Your task to perform on an android device: Open the calendar app, open the side menu, and click the "Day" option Image 0: 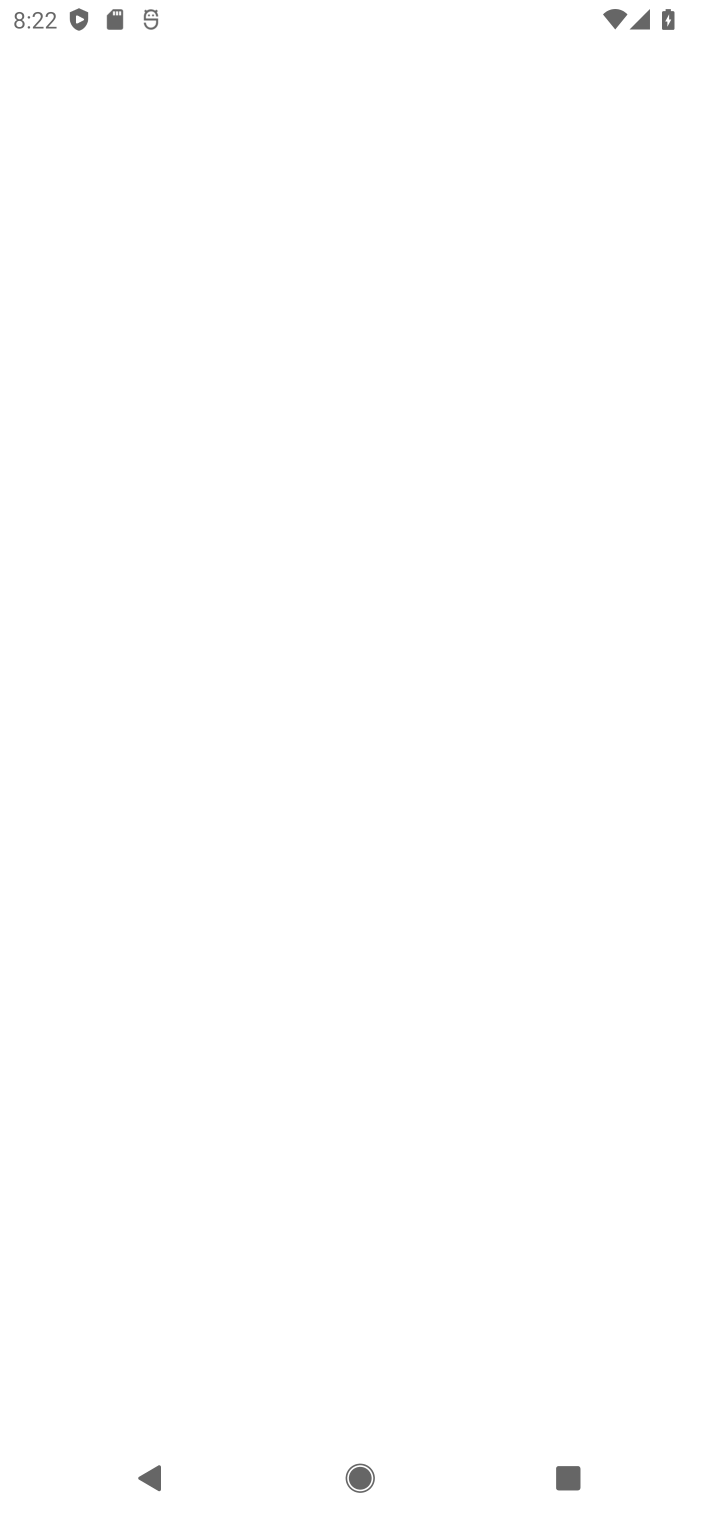
Step 0: click (403, 305)
Your task to perform on an android device: Open the calendar app, open the side menu, and click the "Day" option Image 1: 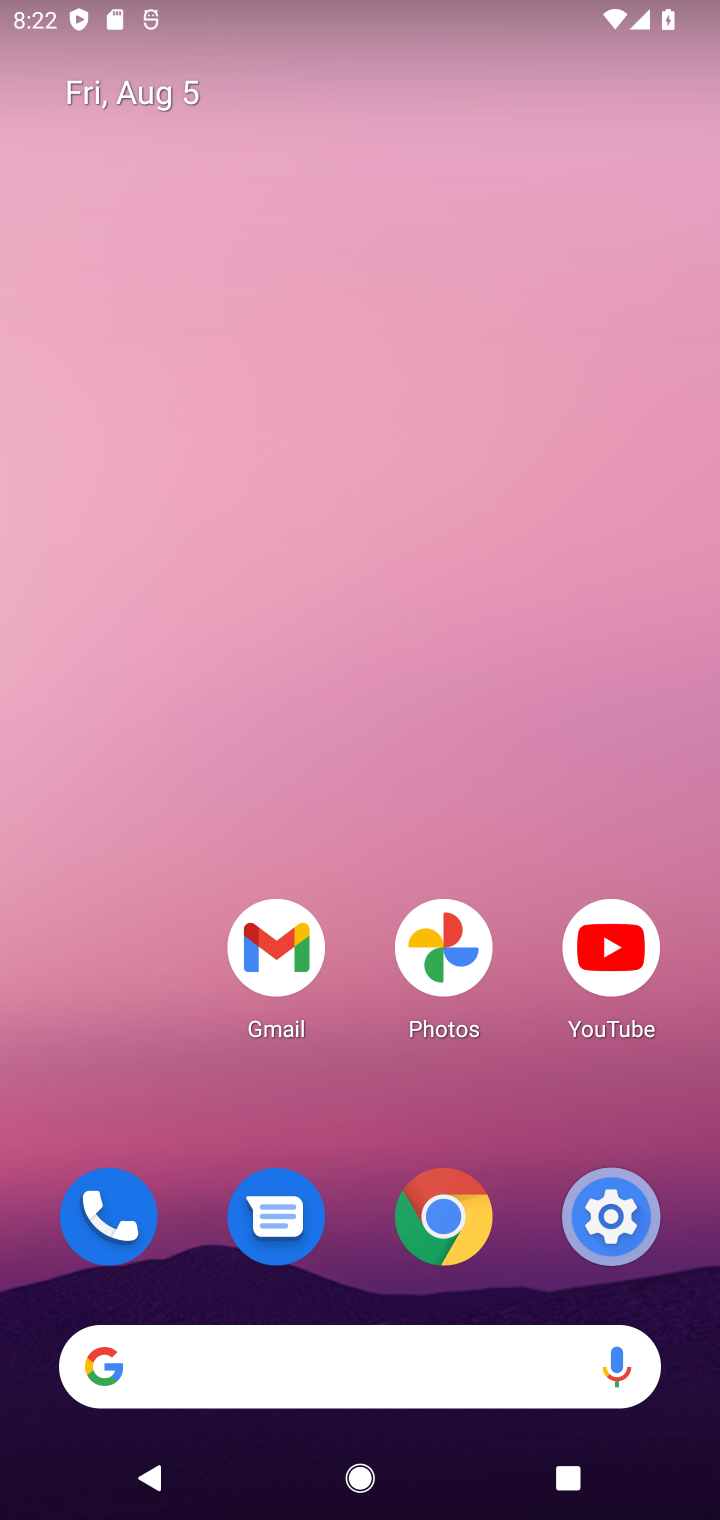
Step 1: press home button
Your task to perform on an android device: Open the calendar app, open the side menu, and click the "Day" option Image 2: 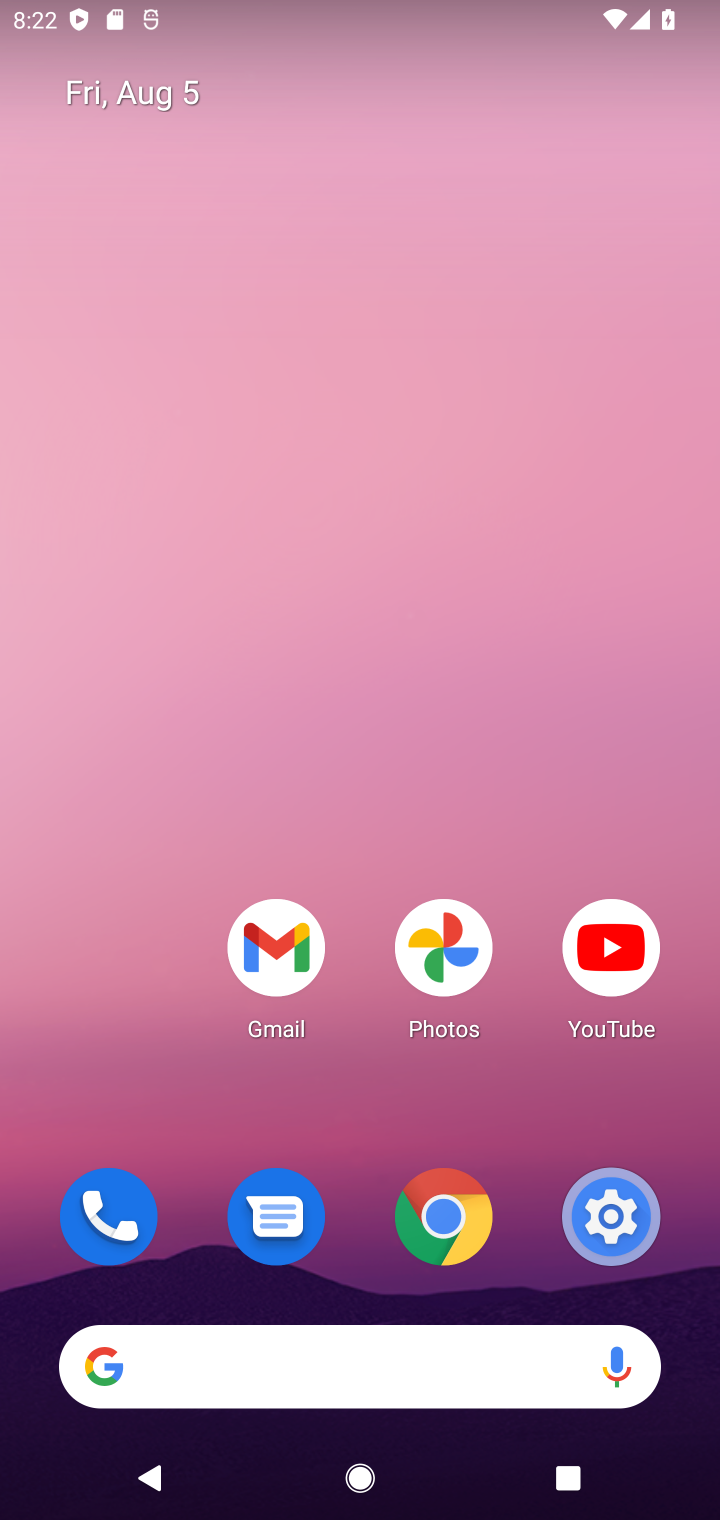
Step 2: drag from (361, 965) to (427, 287)
Your task to perform on an android device: Open the calendar app, open the side menu, and click the "Day" option Image 3: 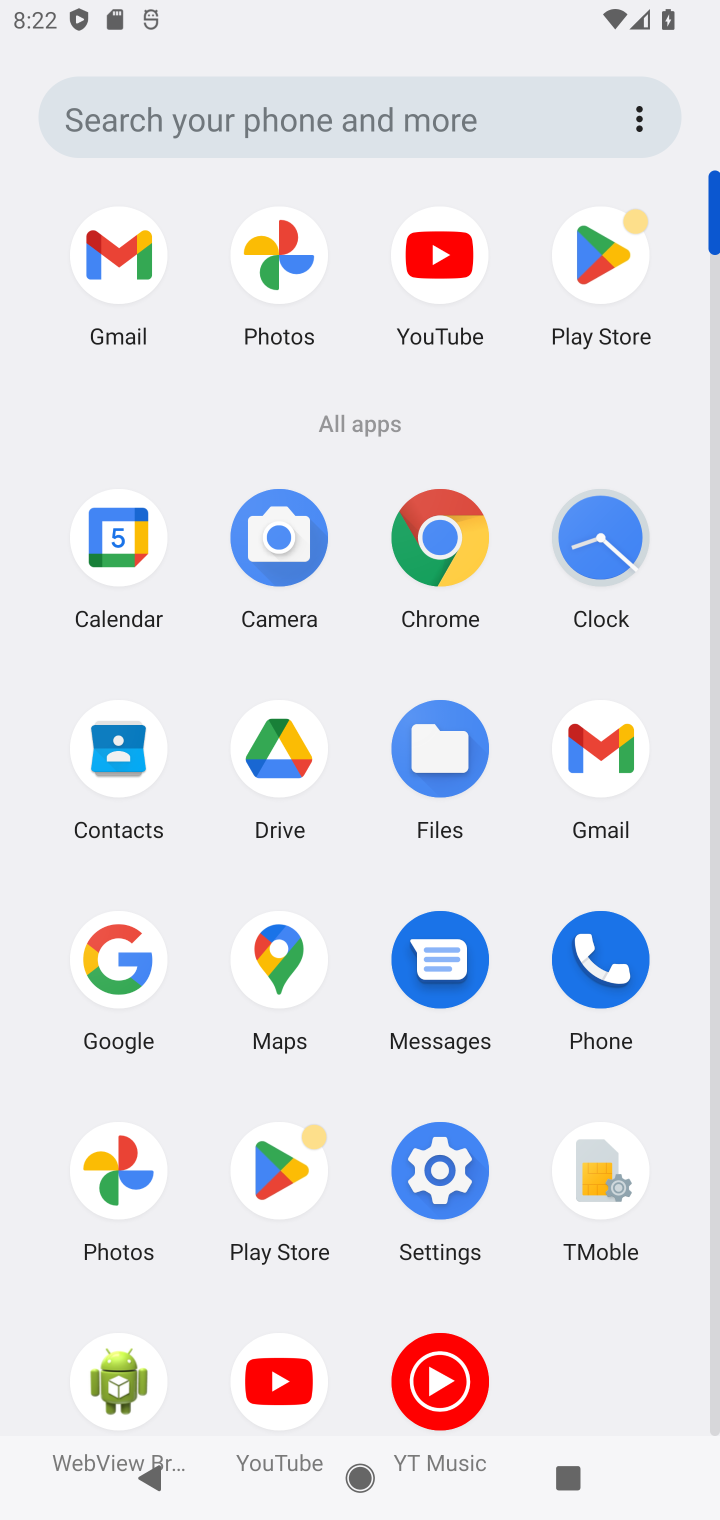
Step 3: click (142, 522)
Your task to perform on an android device: Open the calendar app, open the side menu, and click the "Day" option Image 4: 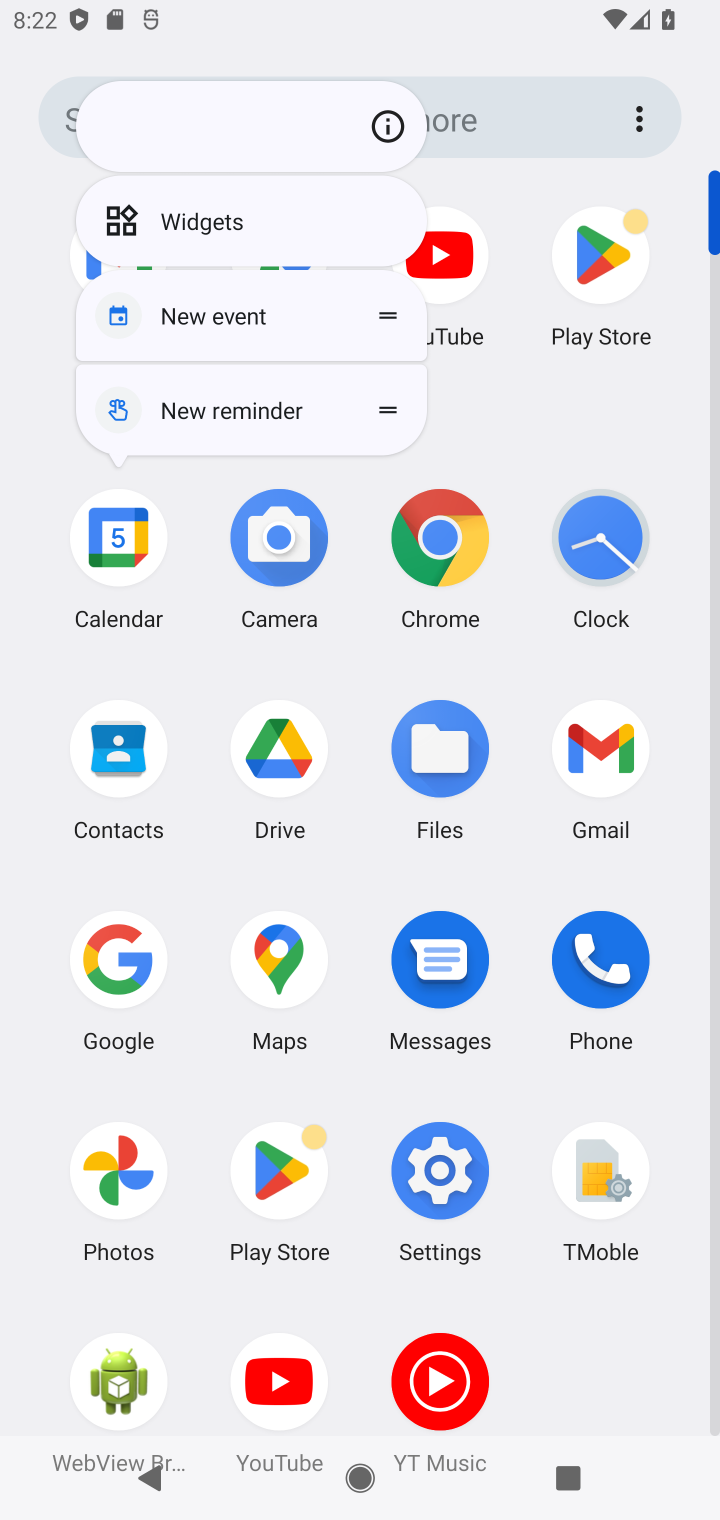
Step 4: click (374, 112)
Your task to perform on an android device: Open the calendar app, open the side menu, and click the "Day" option Image 5: 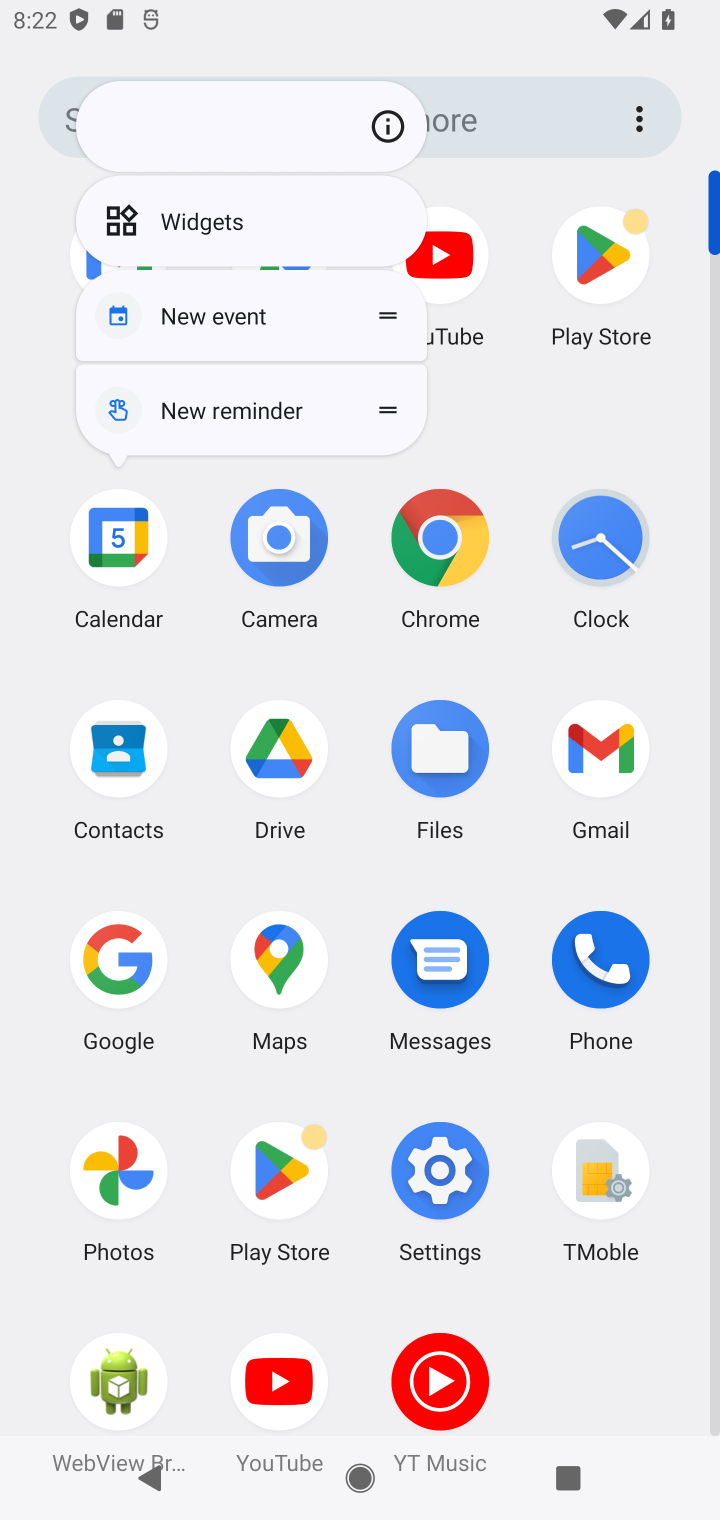
Step 5: click (374, 117)
Your task to perform on an android device: Open the calendar app, open the side menu, and click the "Day" option Image 6: 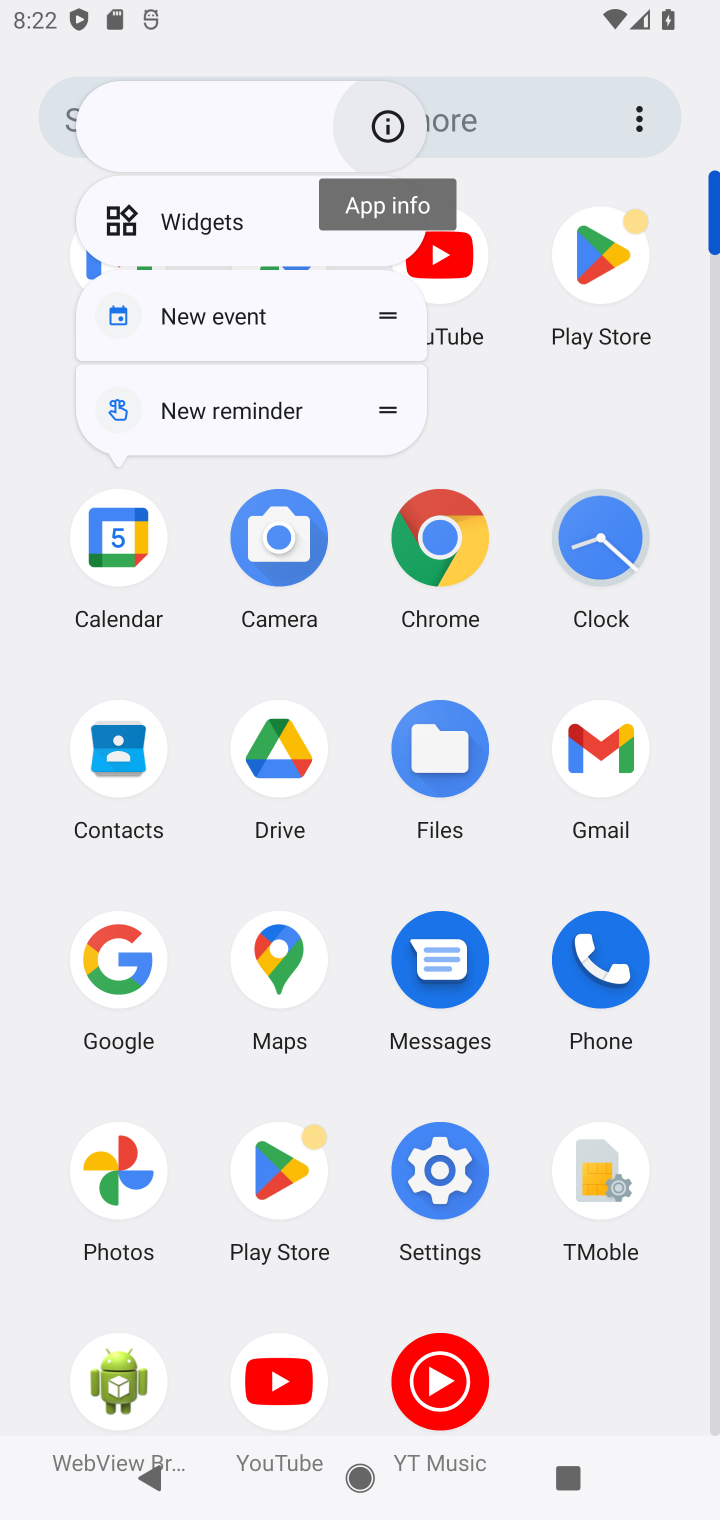
Step 6: click (374, 117)
Your task to perform on an android device: Open the calendar app, open the side menu, and click the "Day" option Image 7: 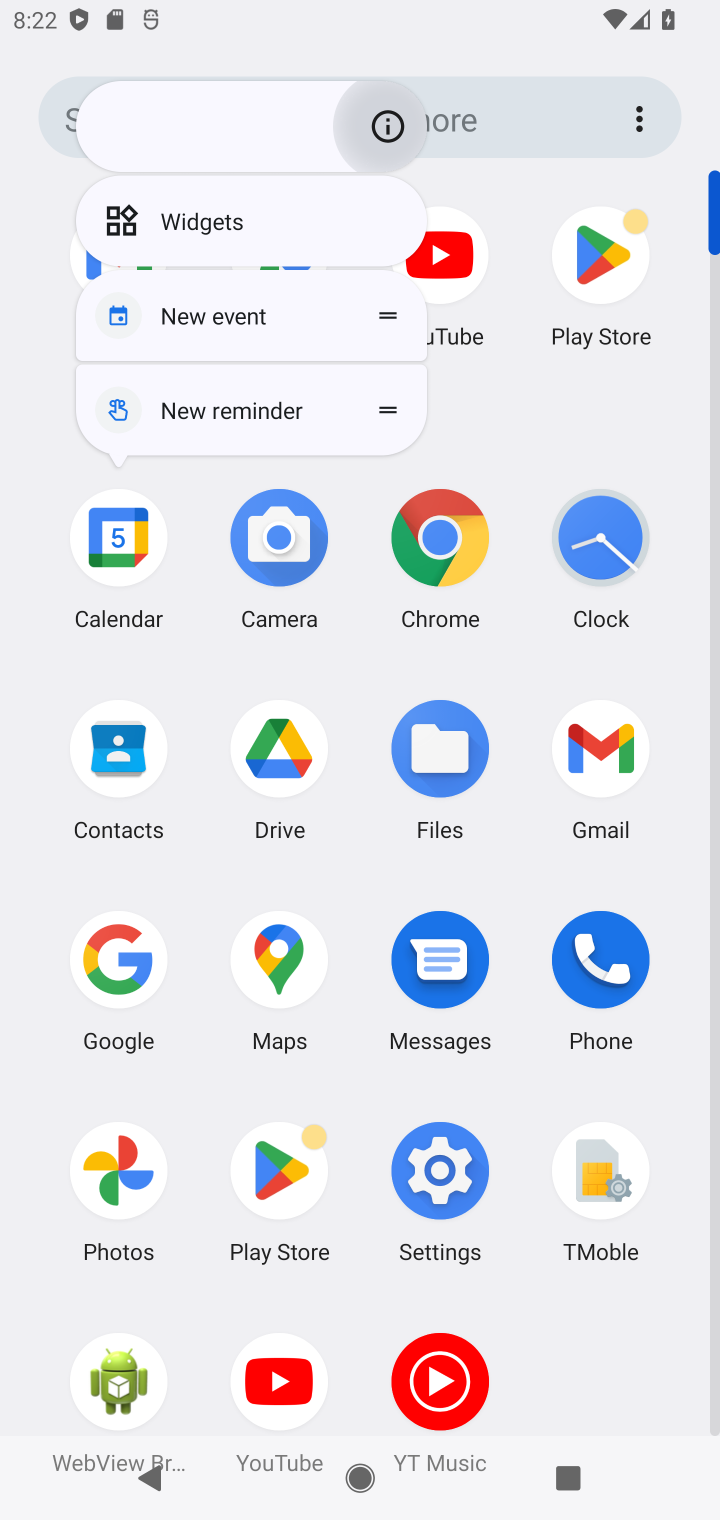
Step 7: click (374, 117)
Your task to perform on an android device: Open the calendar app, open the side menu, and click the "Day" option Image 8: 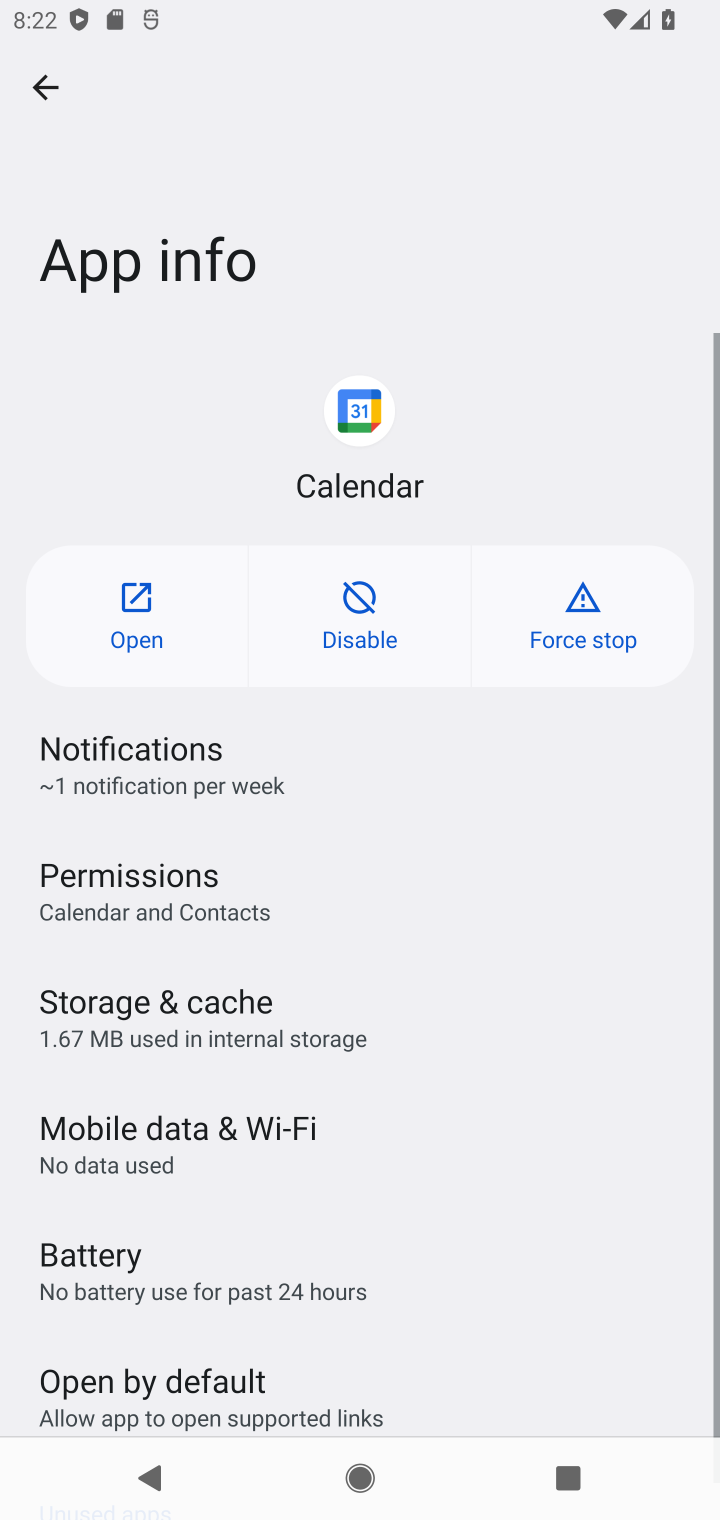
Step 8: click (139, 584)
Your task to perform on an android device: Open the calendar app, open the side menu, and click the "Day" option Image 9: 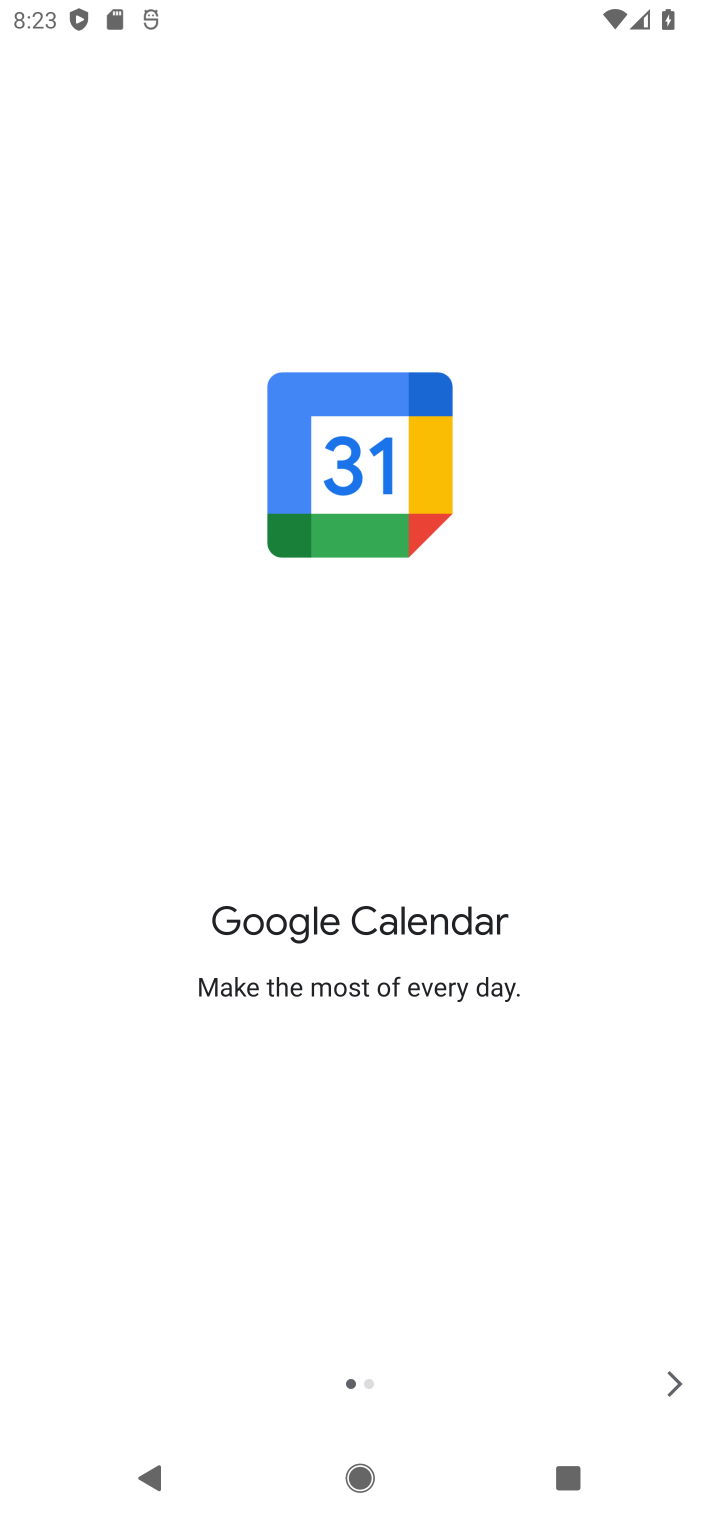
Step 9: drag from (380, 1121) to (409, 693)
Your task to perform on an android device: Open the calendar app, open the side menu, and click the "Day" option Image 10: 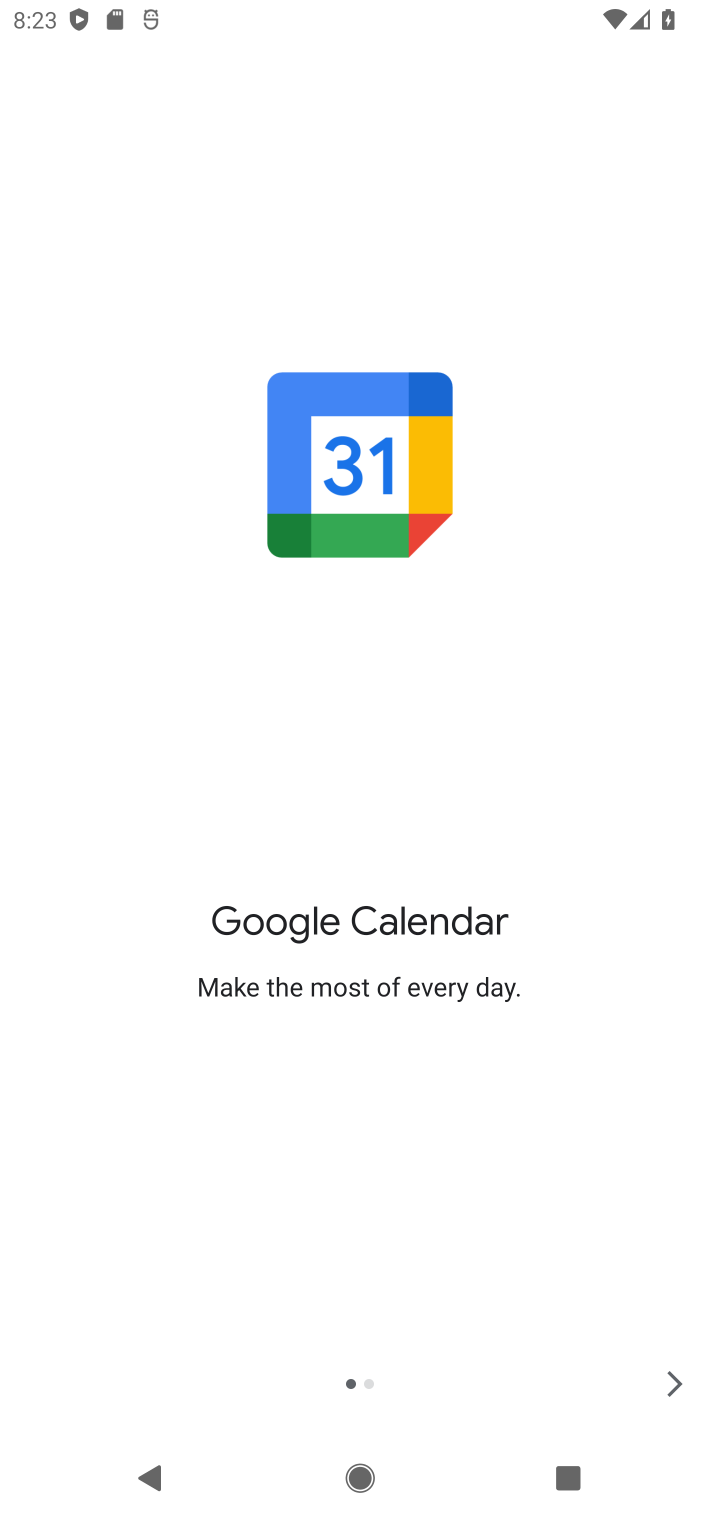
Step 10: click (672, 1378)
Your task to perform on an android device: Open the calendar app, open the side menu, and click the "Day" option Image 11: 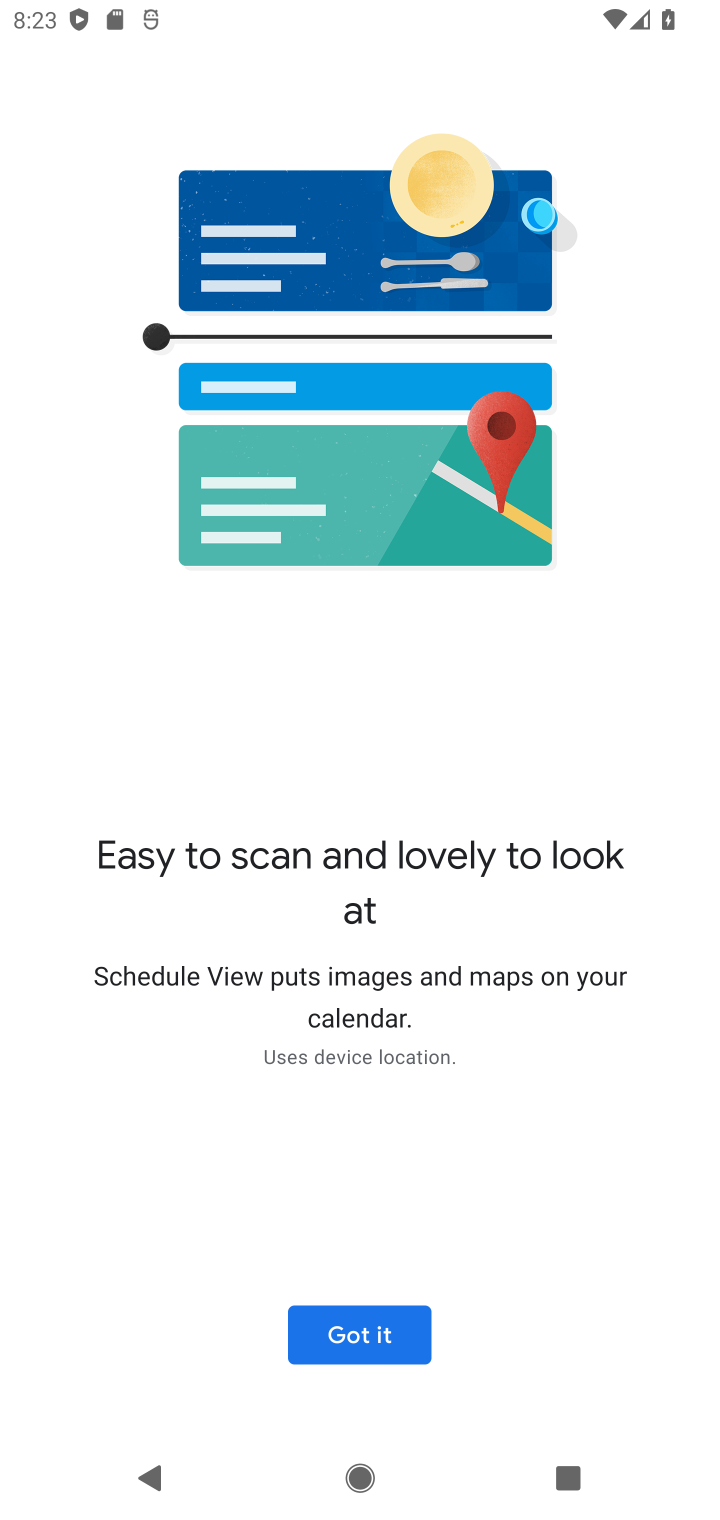
Step 11: click (679, 1379)
Your task to perform on an android device: Open the calendar app, open the side menu, and click the "Day" option Image 12: 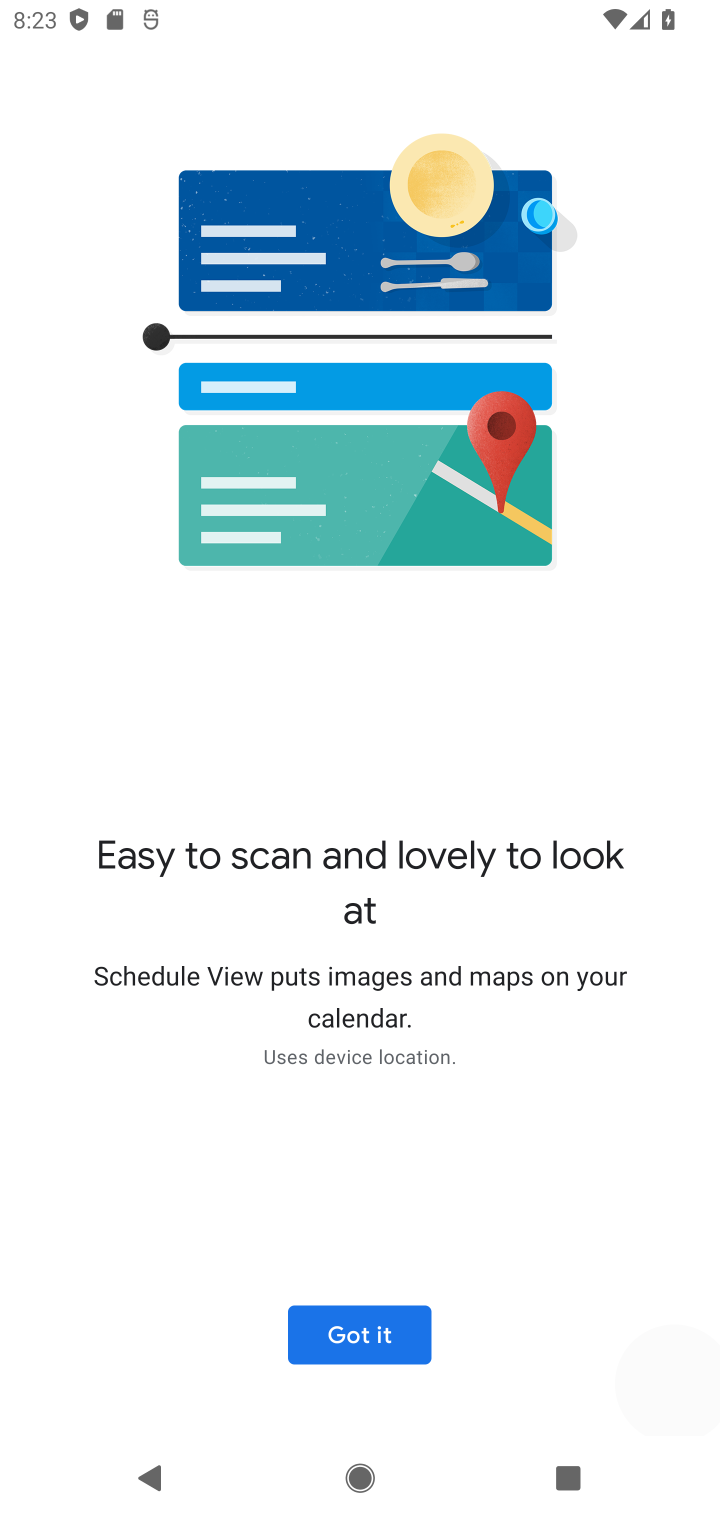
Step 12: click (383, 1323)
Your task to perform on an android device: Open the calendar app, open the side menu, and click the "Day" option Image 13: 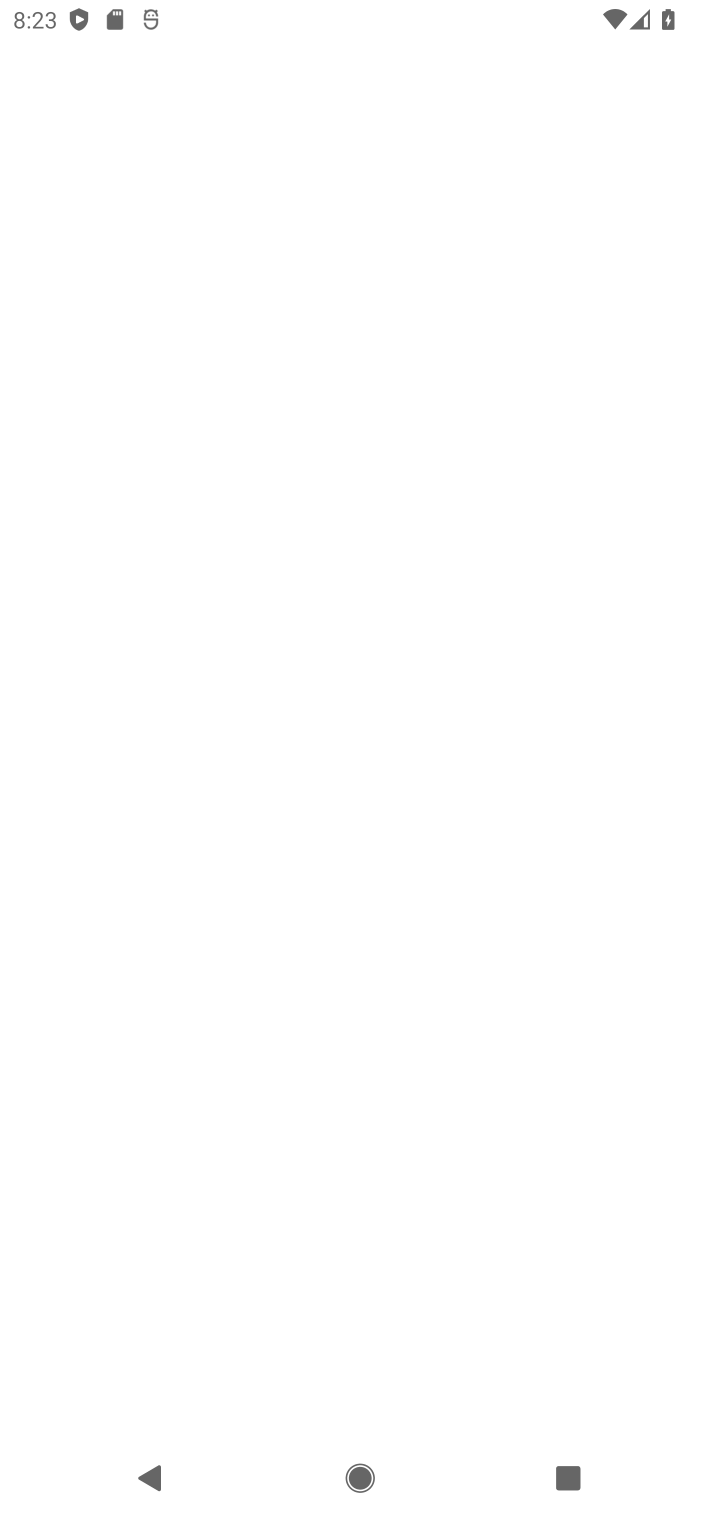
Step 13: drag from (438, 1200) to (473, 646)
Your task to perform on an android device: Open the calendar app, open the side menu, and click the "Day" option Image 14: 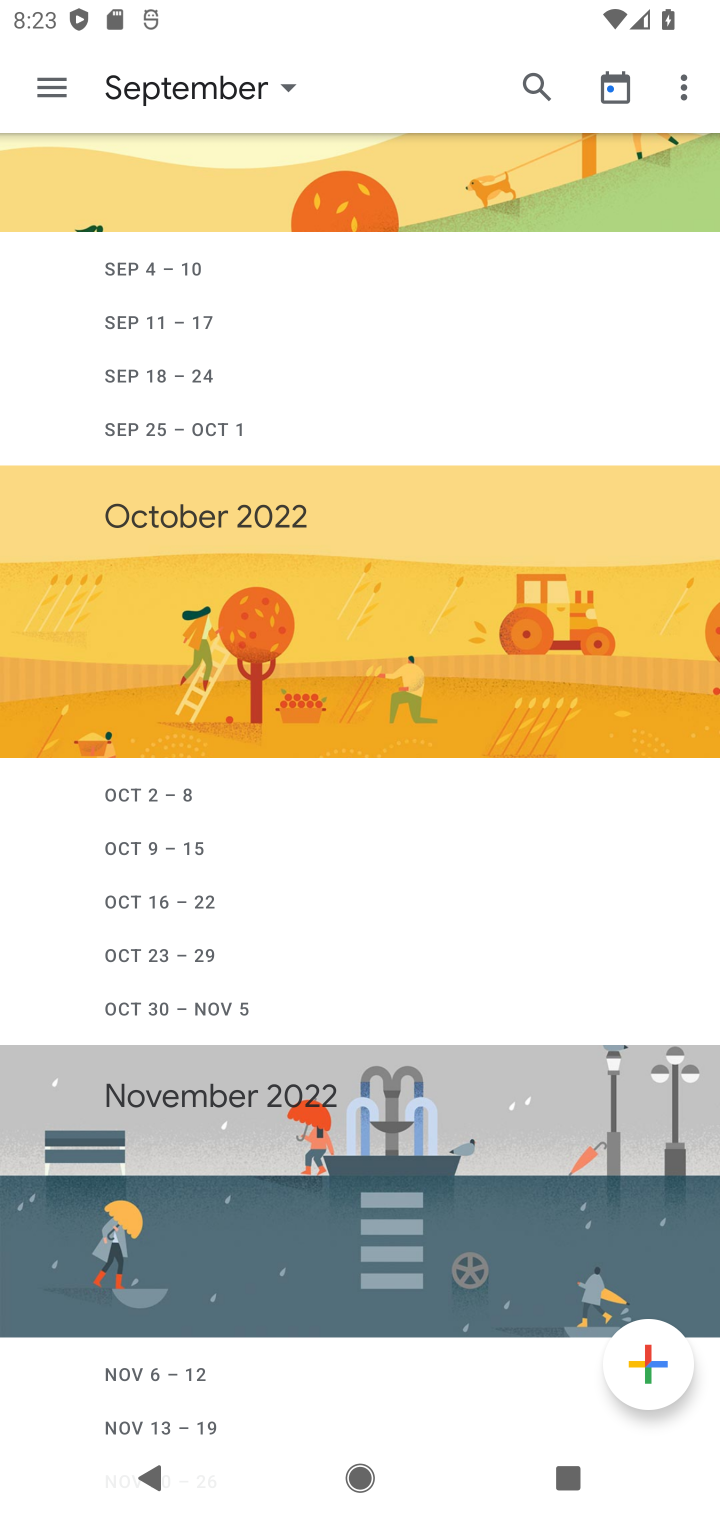
Step 14: click (39, 79)
Your task to perform on an android device: Open the calendar app, open the side menu, and click the "Day" option Image 15: 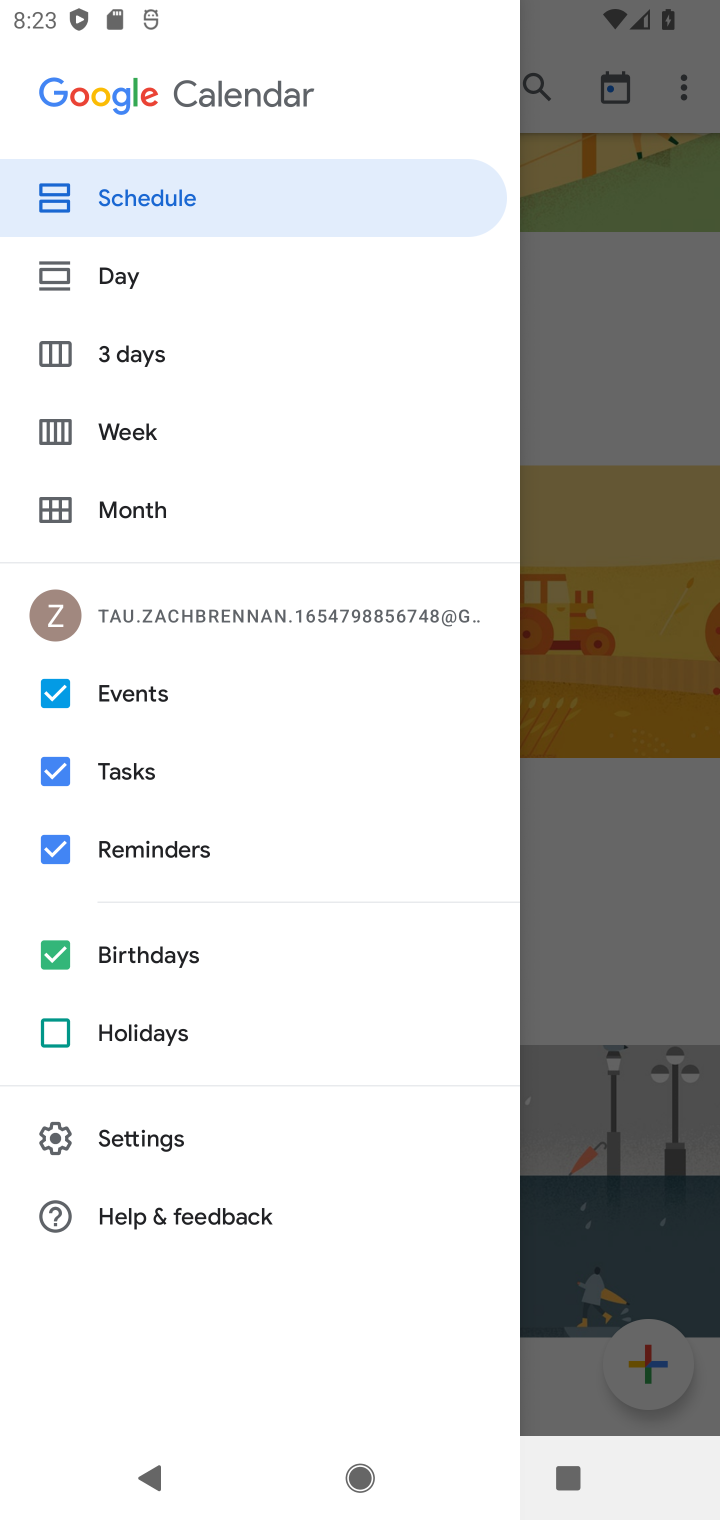
Step 15: click (150, 293)
Your task to perform on an android device: Open the calendar app, open the side menu, and click the "Day" option Image 16: 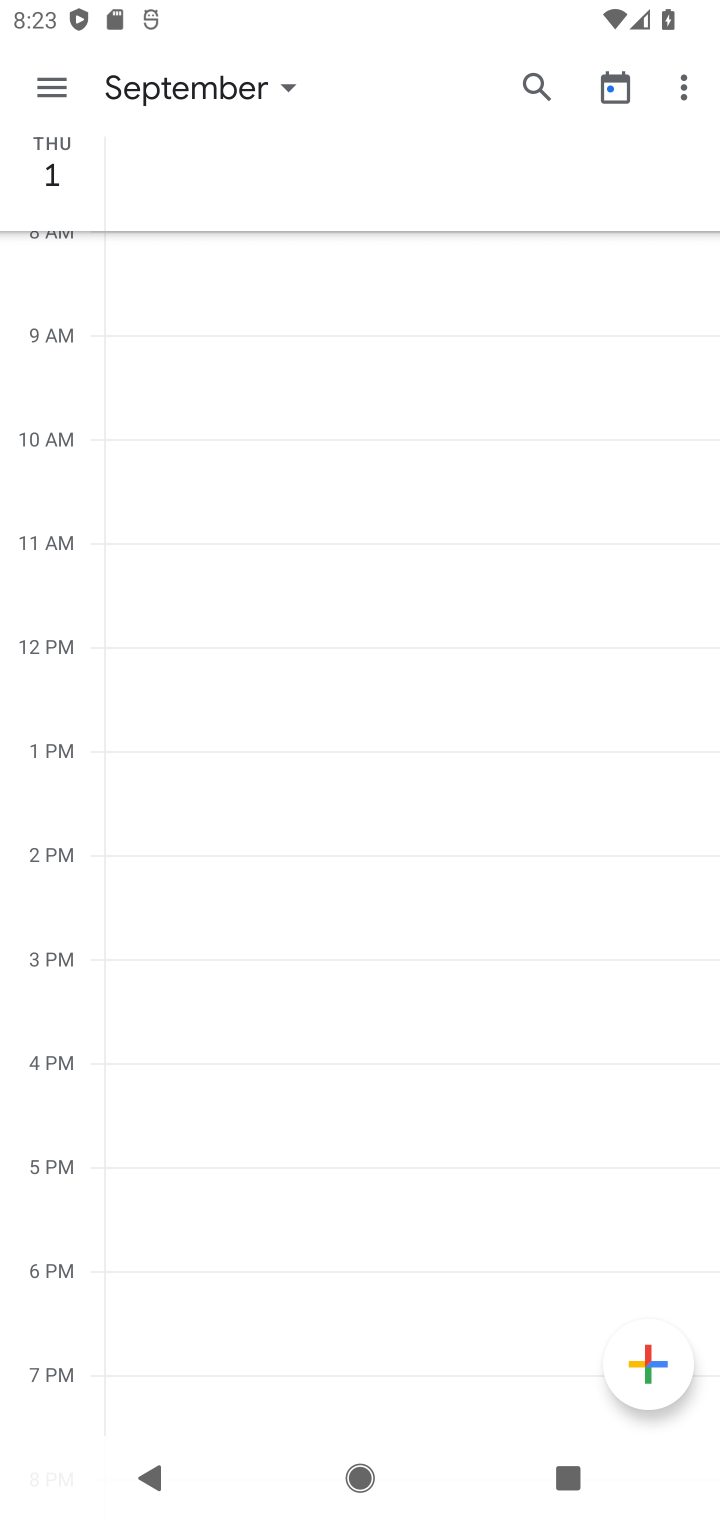
Step 16: task complete